Your task to perform on an android device: Go to settings Image 0: 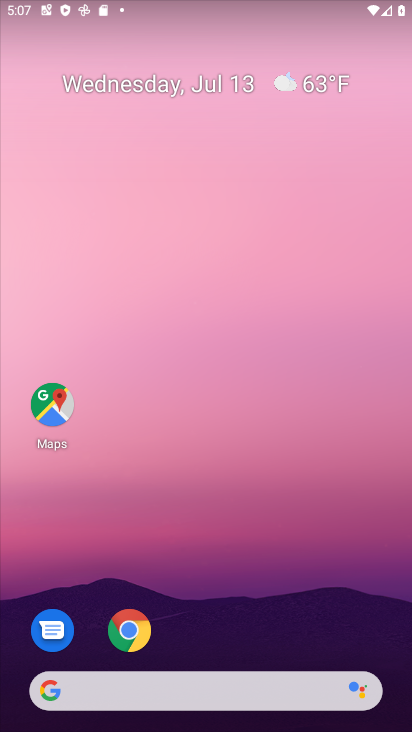
Step 0: press home button
Your task to perform on an android device: Go to settings Image 1: 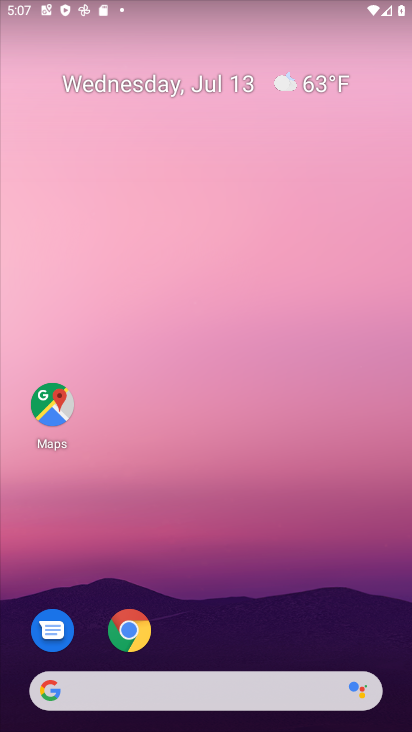
Step 1: drag from (239, 647) to (299, 28)
Your task to perform on an android device: Go to settings Image 2: 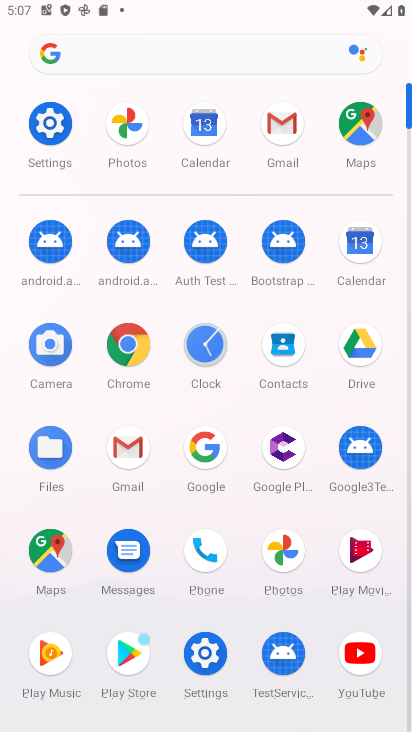
Step 2: click (50, 137)
Your task to perform on an android device: Go to settings Image 3: 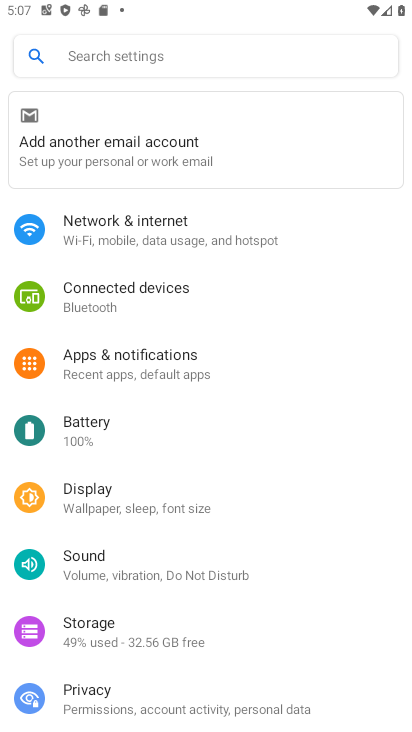
Step 3: task complete